Your task to perform on an android device: When is my next appointment? Image 0: 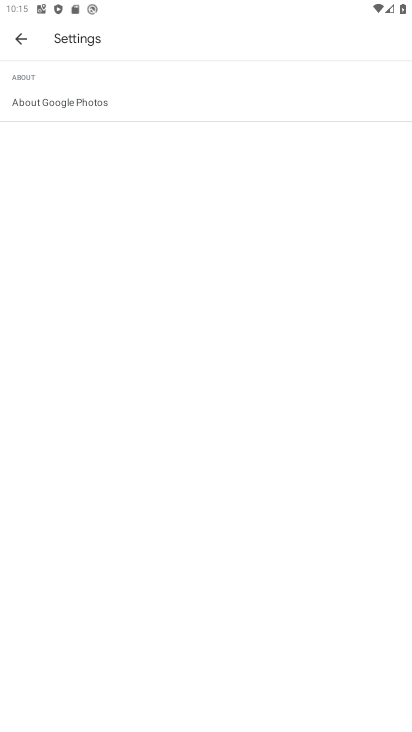
Step 0: press home button
Your task to perform on an android device: When is my next appointment? Image 1: 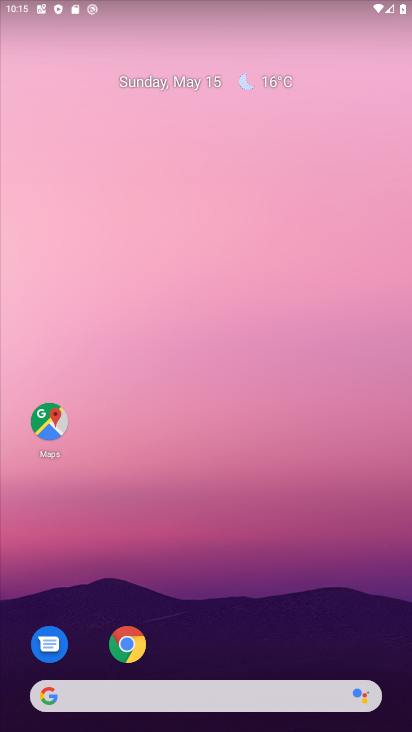
Step 1: drag from (271, 629) to (241, 131)
Your task to perform on an android device: When is my next appointment? Image 2: 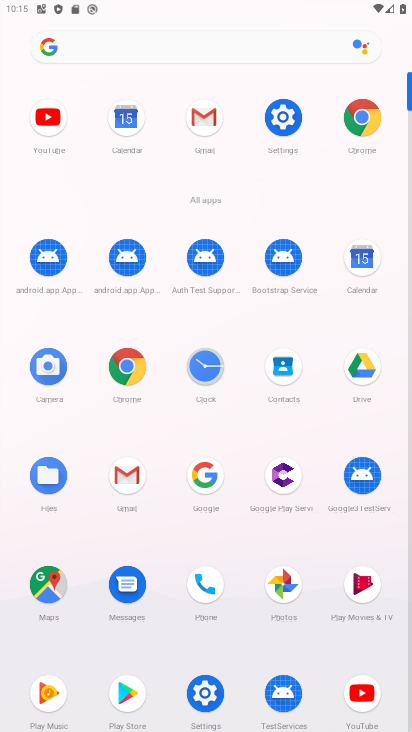
Step 2: click (365, 266)
Your task to perform on an android device: When is my next appointment? Image 3: 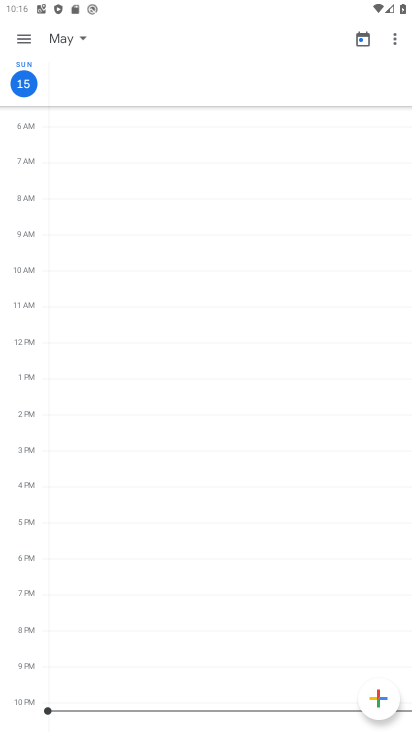
Step 3: click (19, 30)
Your task to perform on an android device: When is my next appointment? Image 4: 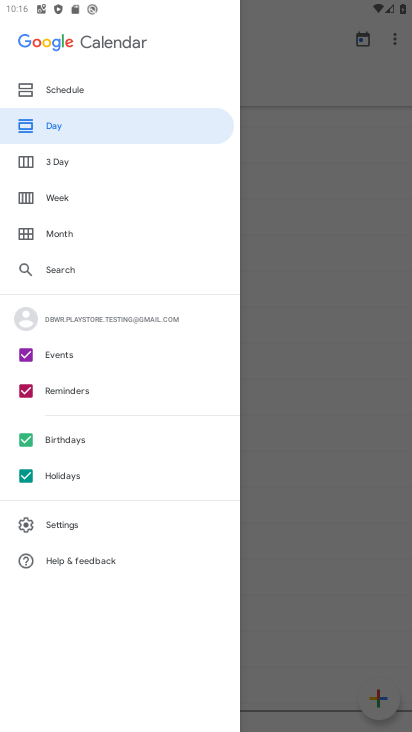
Step 4: click (75, 88)
Your task to perform on an android device: When is my next appointment? Image 5: 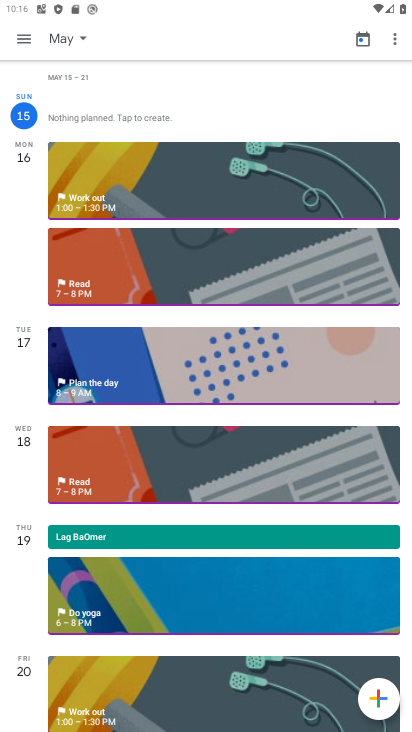
Step 5: task complete